Your task to perform on an android device: Search for Italian restaurants on Maps Image 0: 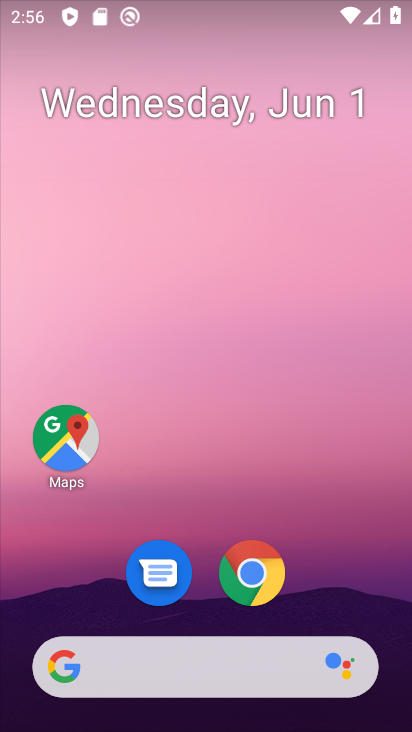
Step 0: click (56, 453)
Your task to perform on an android device: Search for Italian restaurants on Maps Image 1: 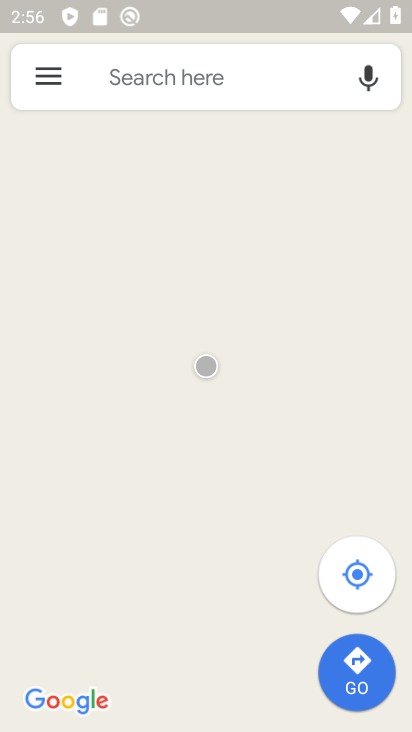
Step 1: click (172, 68)
Your task to perform on an android device: Search for Italian restaurants on Maps Image 2: 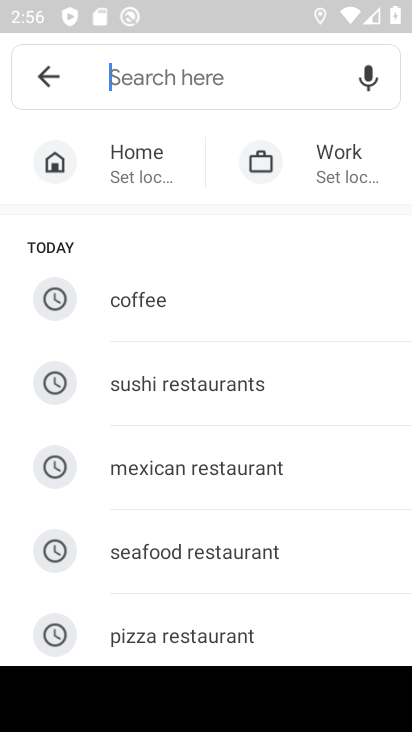
Step 2: type "italian "
Your task to perform on an android device: Search for Italian restaurants on Maps Image 3: 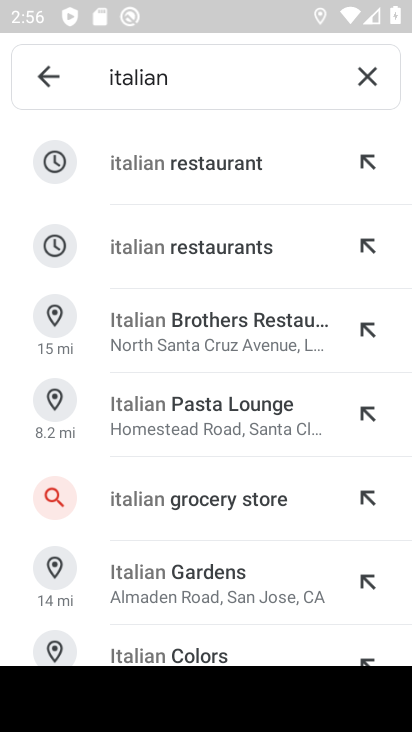
Step 3: click (229, 258)
Your task to perform on an android device: Search for Italian restaurants on Maps Image 4: 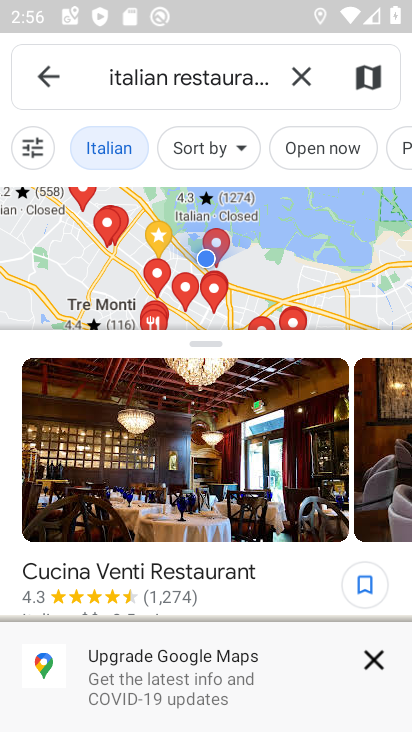
Step 4: click (383, 670)
Your task to perform on an android device: Search for Italian restaurants on Maps Image 5: 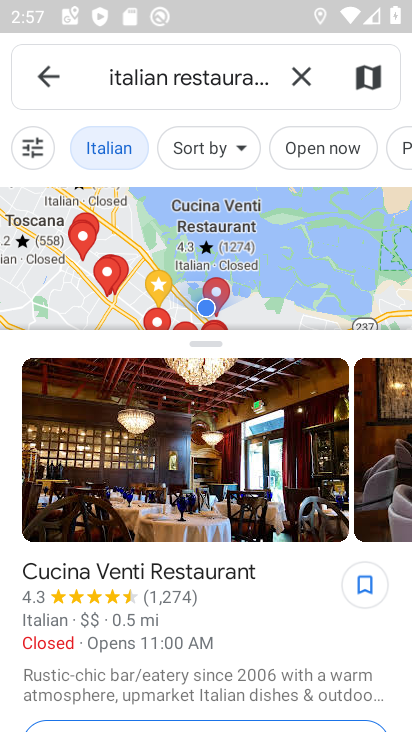
Step 5: task complete